Your task to perform on an android device: read, delete, or share a saved page in the chrome app Image 0: 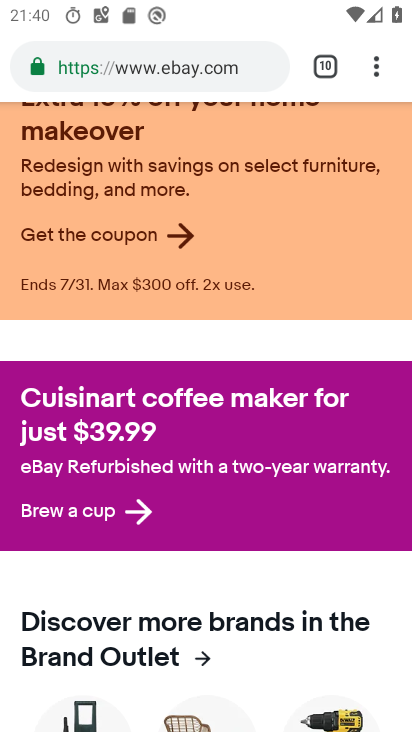
Step 0: press home button
Your task to perform on an android device: read, delete, or share a saved page in the chrome app Image 1: 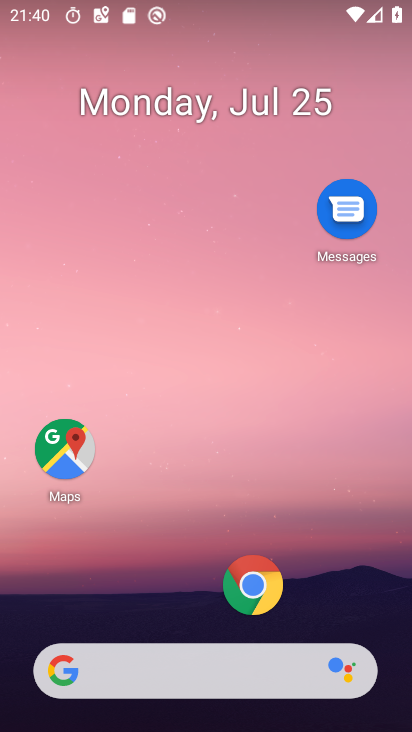
Step 1: click (246, 596)
Your task to perform on an android device: read, delete, or share a saved page in the chrome app Image 2: 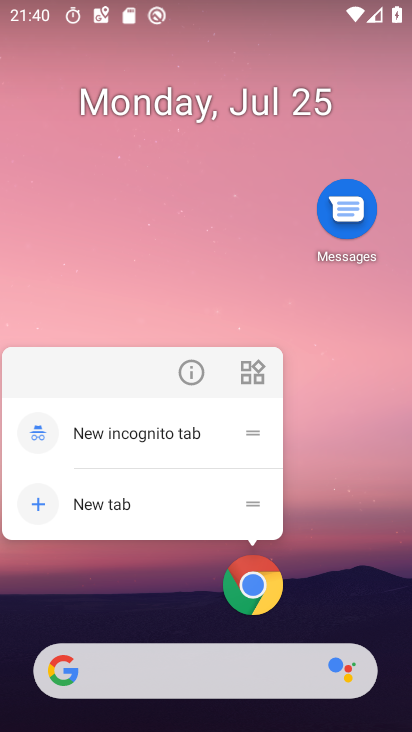
Step 2: click (255, 589)
Your task to perform on an android device: read, delete, or share a saved page in the chrome app Image 3: 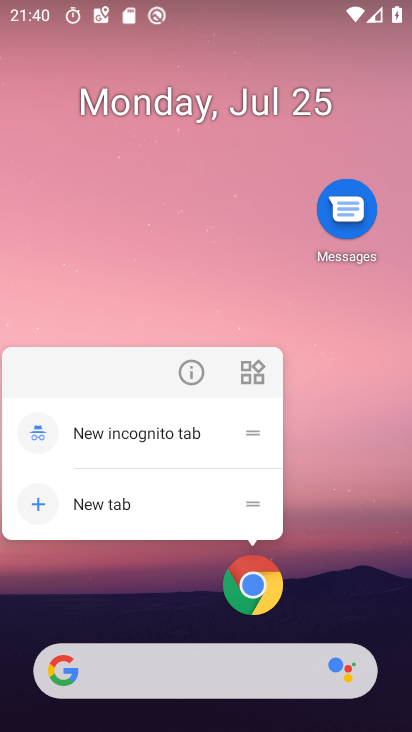
Step 3: click (251, 595)
Your task to perform on an android device: read, delete, or share a saved page in the chrome app Image 4: 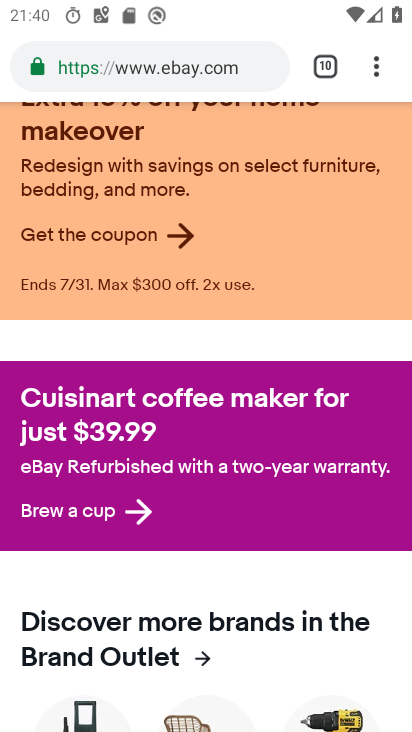
Step 4: drag from (373, 65) to (194, 436)
Your task to perform on an android device: read, delete, or share a saved page in the chrome app Image 5: 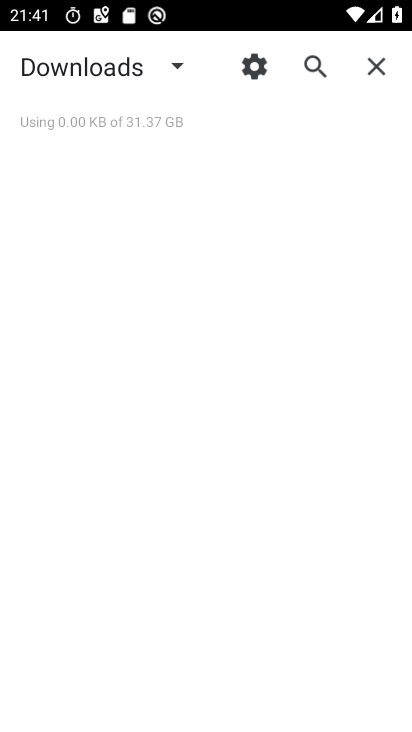
Step 5: click (134, 60)
Your task to perform on an android device: read, delete, or share a saved page in the chrome app Image 6: 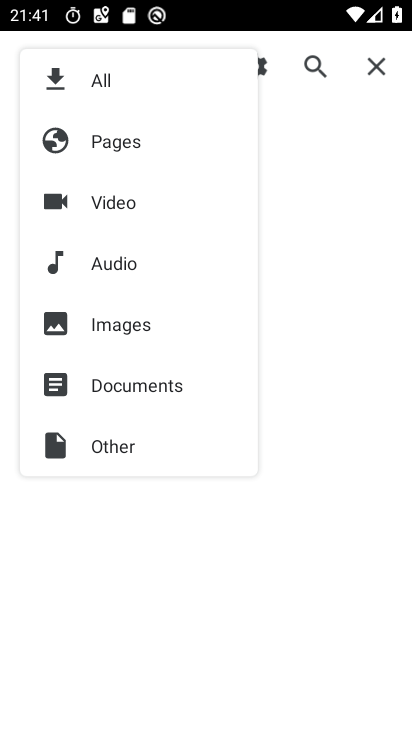
Step 6: click (136, 144)
Your task to perform on an android device: read, delete, or share a saved page in the chrome app Image 7: 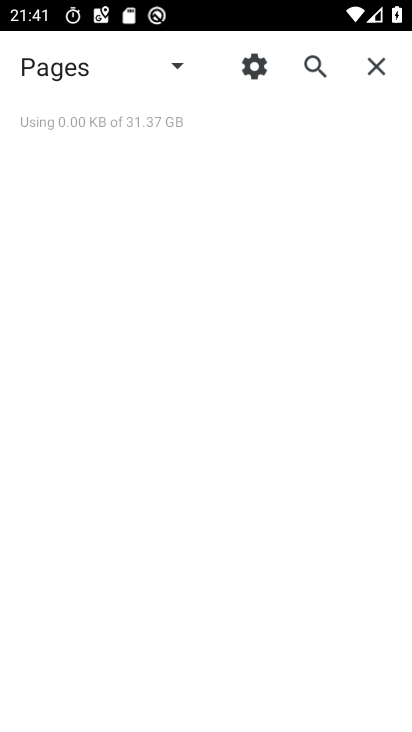
Step 7: task complete